Your task to perform on an android device: open a bookmark in the chrome app Image 0: 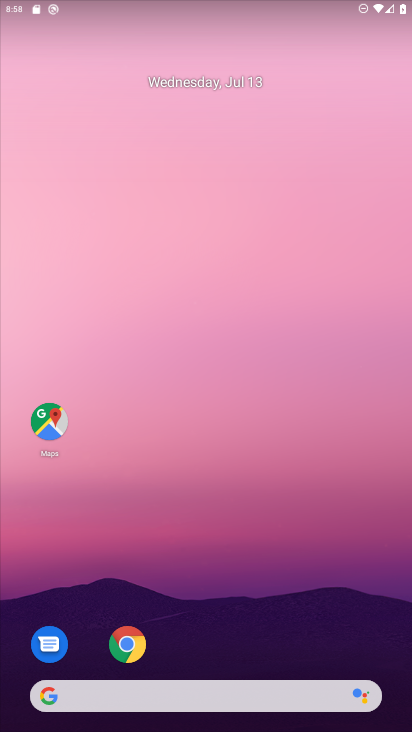
Step 0: click (124, 648)
Your task to perform on an android device: open a bookmark in the chrome app Image 1: 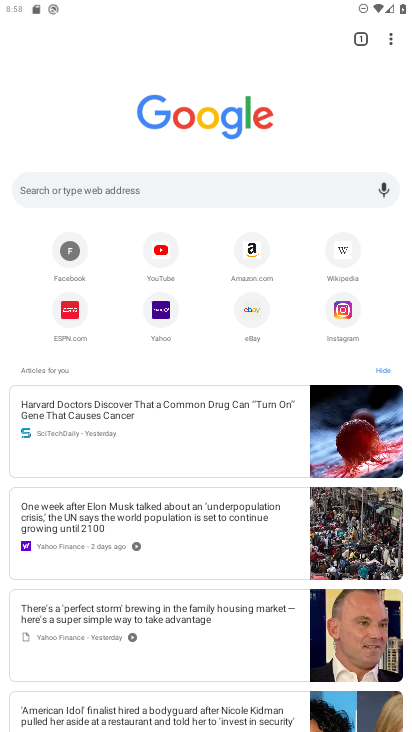
Step 1: click (387, 31)
Your task to perform on an android device: open a bookmark in the chrome app Image 2: 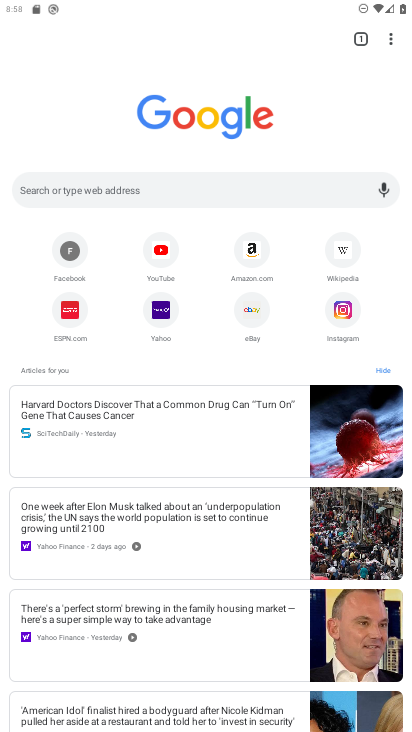
Step 2: task complete